Your task to perform on an android device: change the clock display to show seconds Image 0: 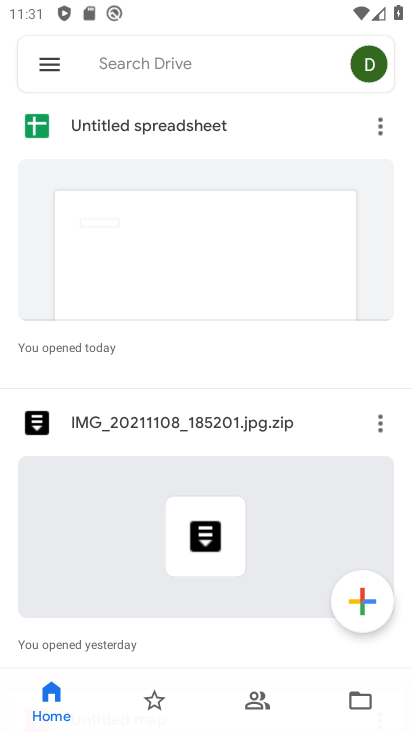
Step 0: press home button
Your task to perform on an android device: change the clock display to show seconds Image 1: 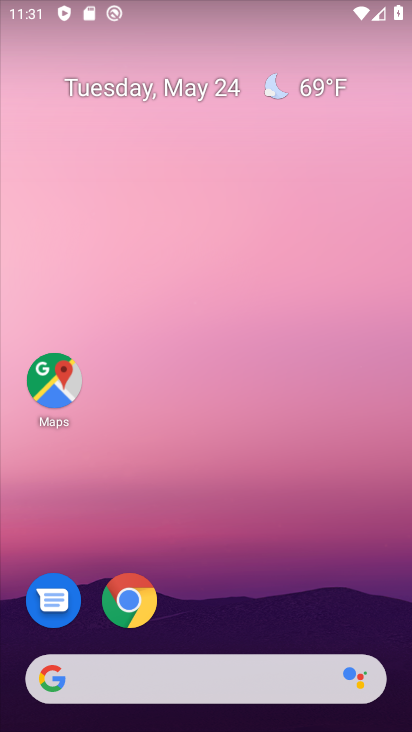
Step 1: drag from (374, 615) to (369, 130)
Your task to perform on an android device: change the clock display to show seconds Image 2: 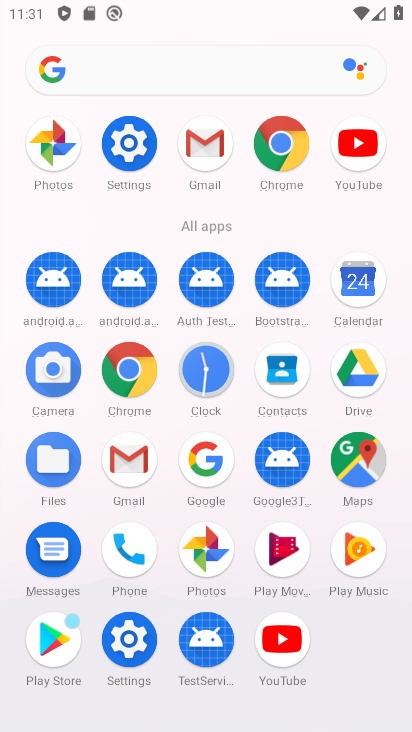
Step 2: click (203, 378)
Your task to perform on an android device: change the clock display to show seconds Image 3: 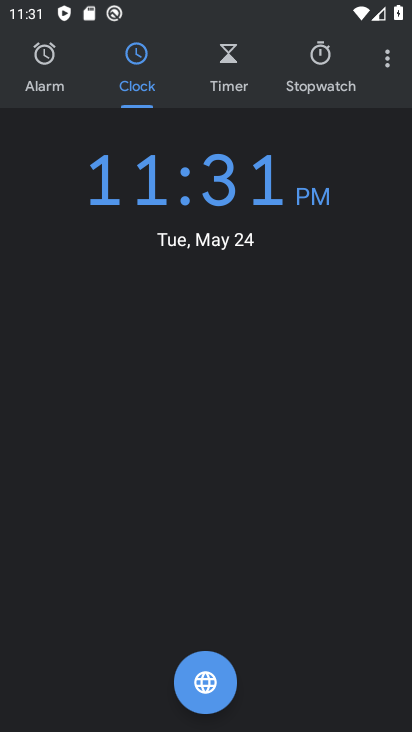
Step 3: click (388, 62)
Your task to perform on an android device: change the clock display to show seconds Image 4: 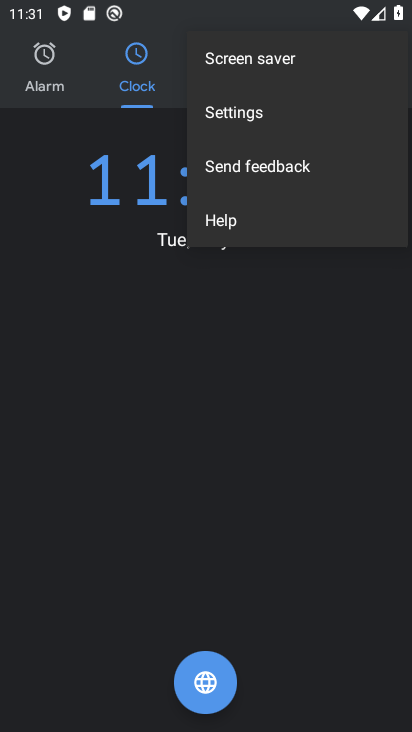
Step 4: click (310, 114)
Your task to perform on an android device: change the clock display to show seconds Image 5: 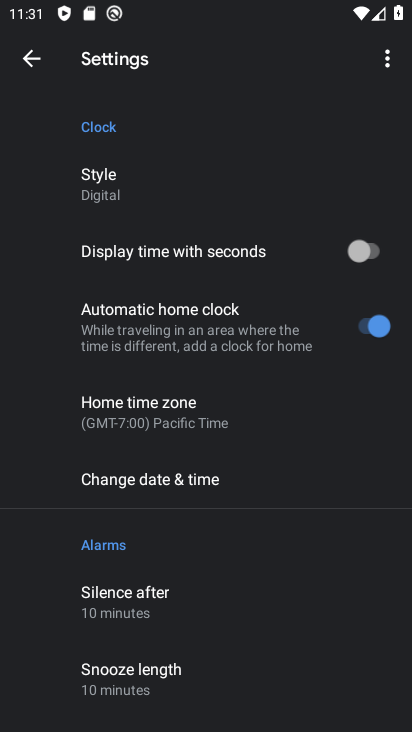
Step 5: drag from (327, 524) to (339, 420)
Your task to perform on an android device: change the clock display to show seconds Image 6: 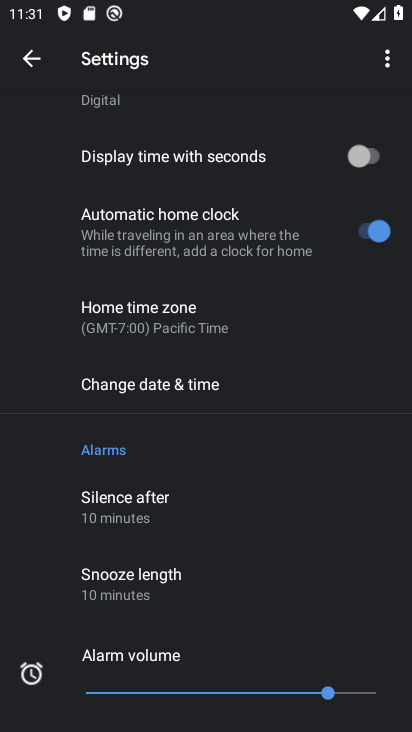
Step 6: drag from (334, 557) to (331, 449)
Your task to perform on an android device: change the clock display to show seconds Image 7: 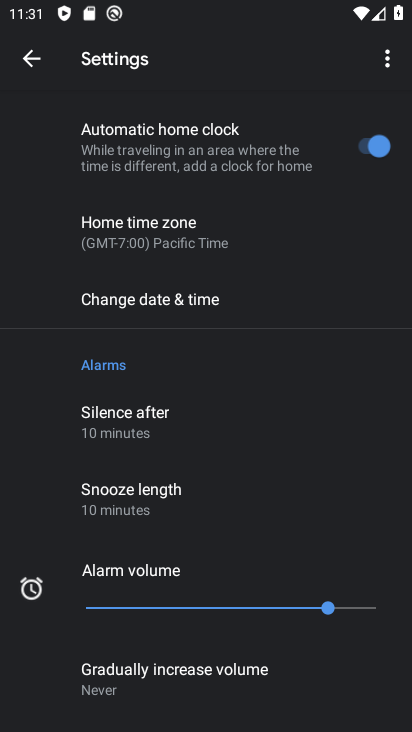
Step 7: drag from (339, 564) to (344, 476)
Your task to perform on an android device: change the clock display to show seconds Image 8: 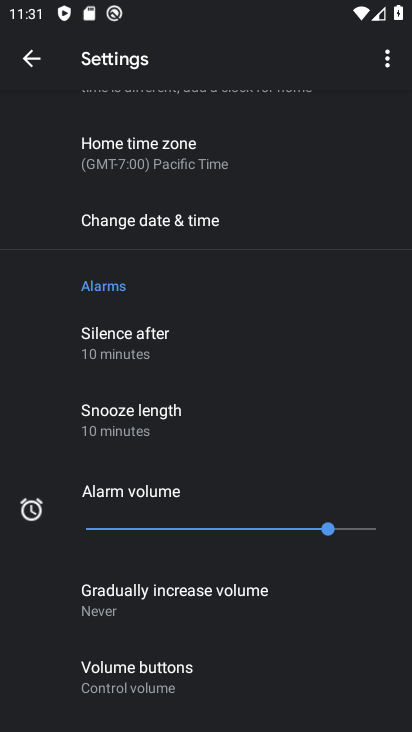
Step 8: drag from (351, 571) to (362, 493)
Your task to perform on an android device: change the clock display to show seconds Image 9: 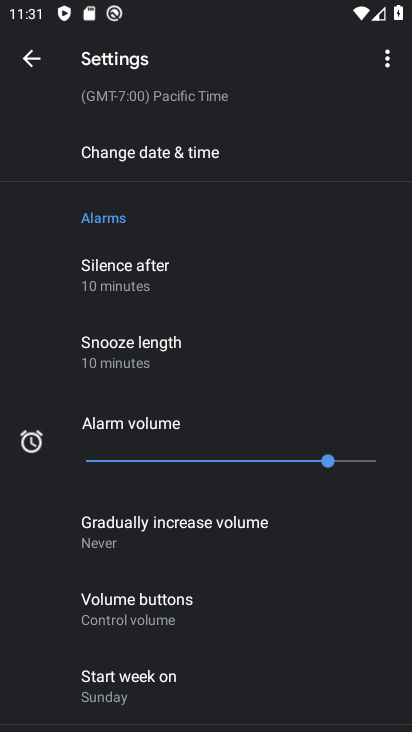
Step 9: drag from (363, 609) to (357, 515)
Your task to perform on an android device: change the clock display to show seconds Image 10: 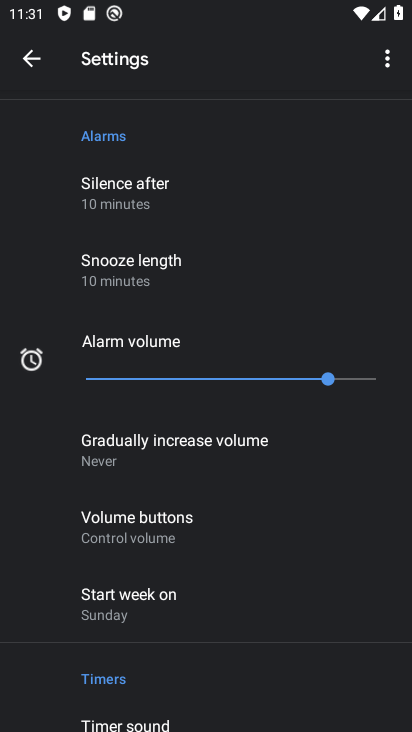
Step 10: drag from (354, 636) to (361, 548)
Your task to perform on an android device: change the clock display to show seconds Image 11: 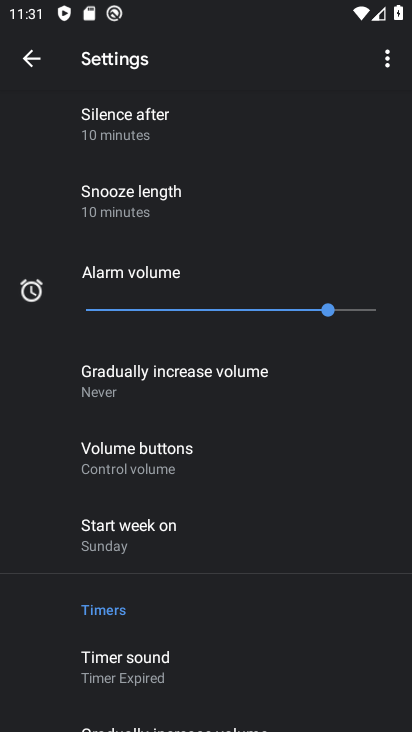
Step 11: drag from (353, 649) to (361, 348)
Your task to perform on an android device: change the clock display to show seconds Image 12: 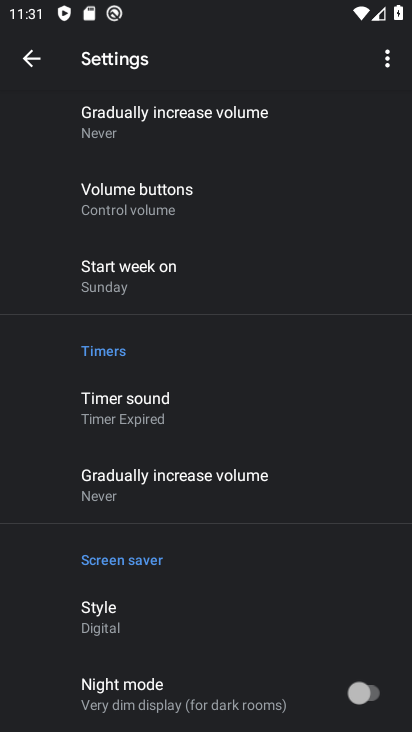
Step 12: drag from (364, 301) to (360, 409)
Your task to perform on an android device: change the clock display to show seconds Image 13: 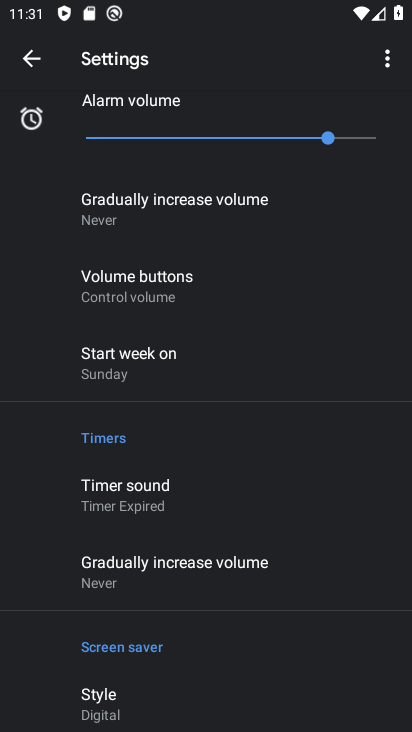
Step 13: drag from (364, 300) to (369, 404)
Your task to perform on an android device: change the clock display to show seconds Image 14: 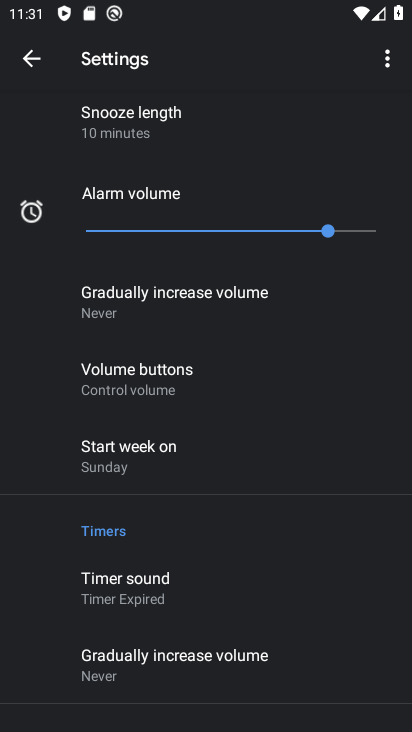
Step 14: drag from (372, 299) to (374, 406)
Your task to perform on an android device: change the clock display to show seconds Image 15: 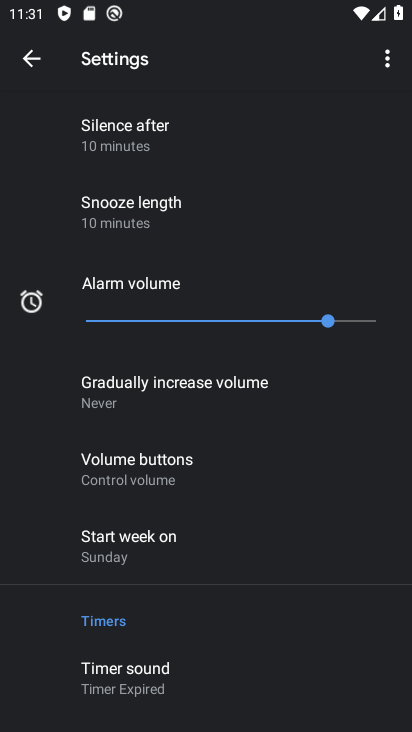
Step 15: drag from (357, 266) to (353, 392)
Your task to perform on an android device: change the clock display to show seconds Image 16: 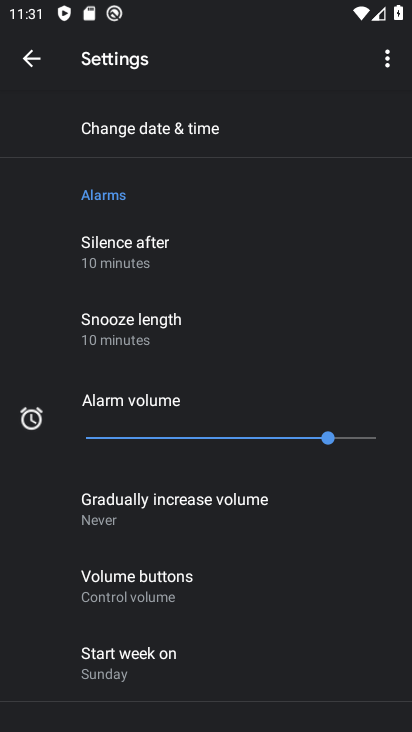
Step 16: drag from (356, 257) to (337, 398)
Your task to perform on an android device: change the clock display to show seconds Image 17: 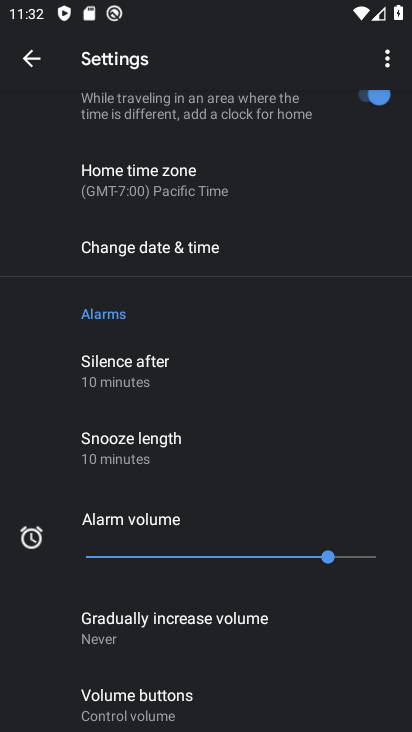
Step 17: drag from (330, 248) to (302, 398)
Your task to perform on an android device: change the clock display to show seconds Image 18: 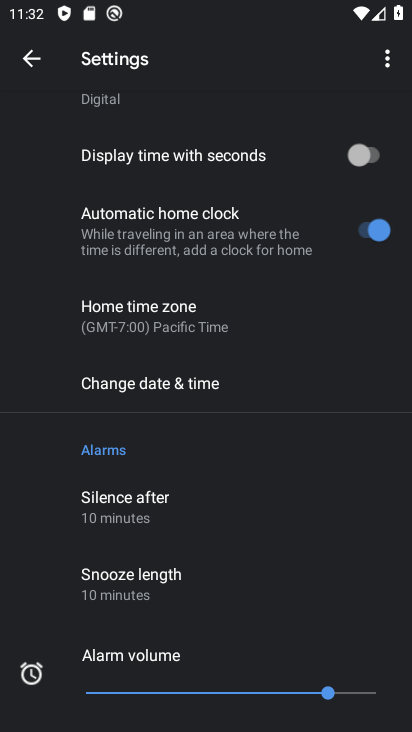
Step 18: drag from (292, 269) to (279, 419)
Your task to perform on an android device: change the clock display to show seconds Image 19: 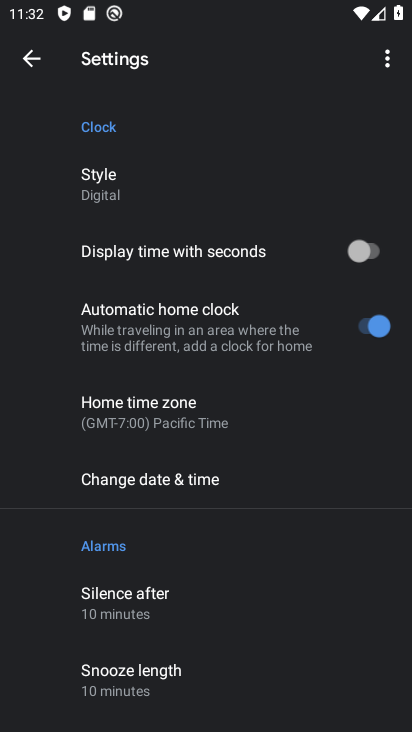
Step 19: click (354, 261)
Your task to perform on an android device: change the clock display to show seconds Image 20: 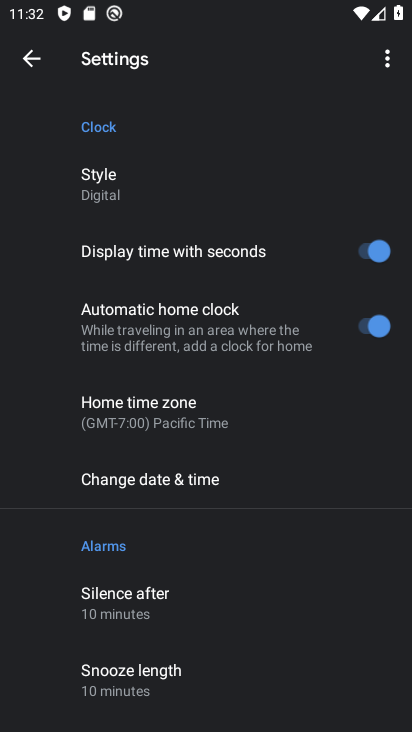
Step 20: task complete